Your task to perform on an android device: check android version Image 0: 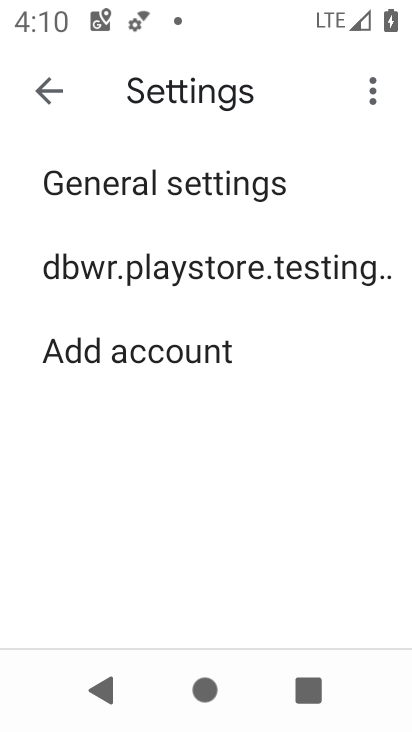
Step 0: press home button
Your task to perform on an android device: check android version Image 1: 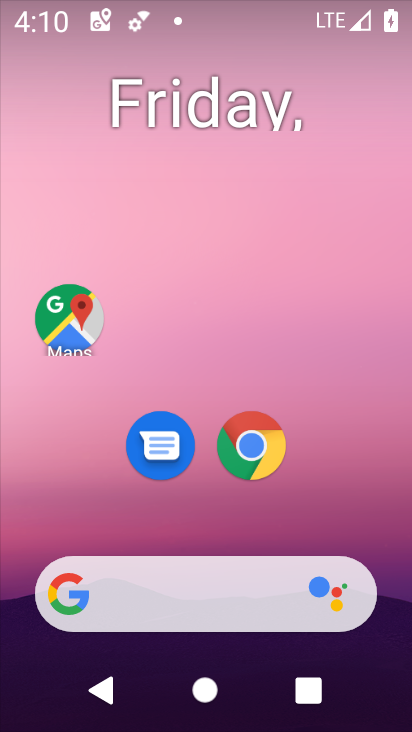
Step 1: drag from (379, 530) to (270, 106)
Your task to perform on an android device: check android version Image 2: 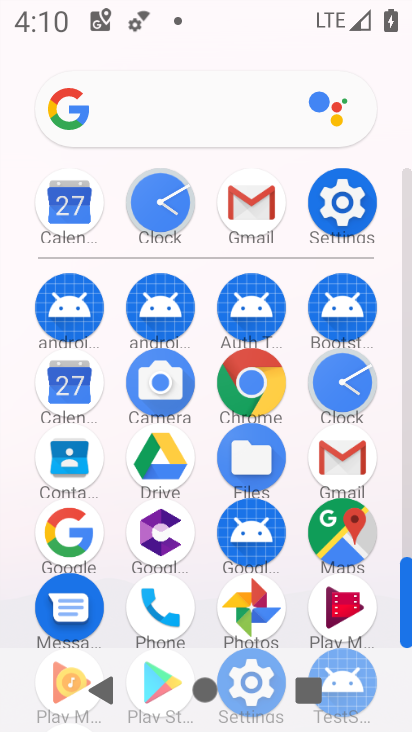
Step 2: click (350, 203)
Your task to perform on an android device: check android version Image 3: 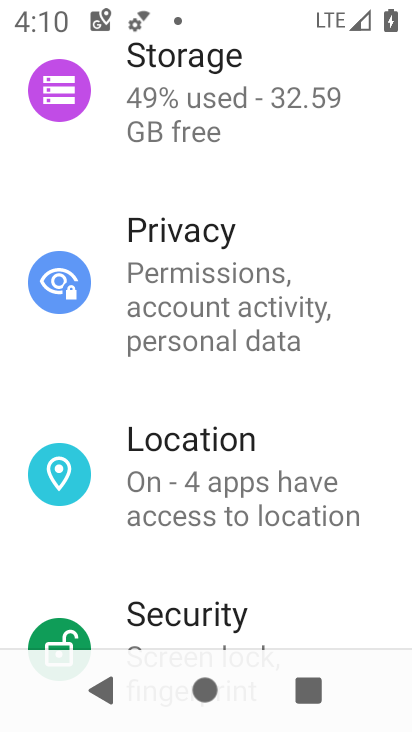
Step 3: drag from (269, 564) to (225, 150)
Your task to perform on an android device: check android version Image 4: 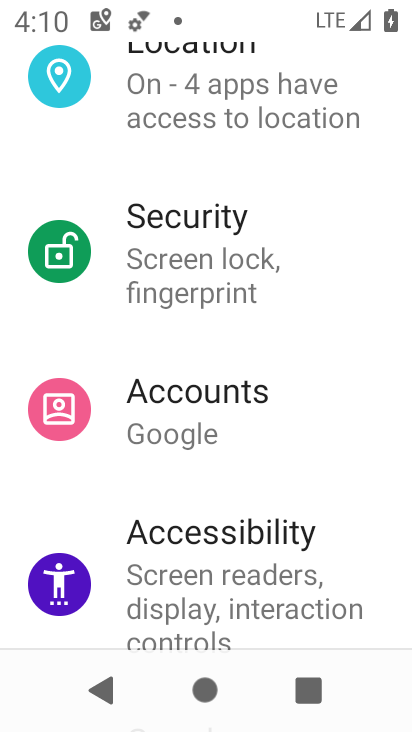
Step 4: drag from (280, 636) to (163, 0)
Your task to perform on an android device: check android version Image 5: 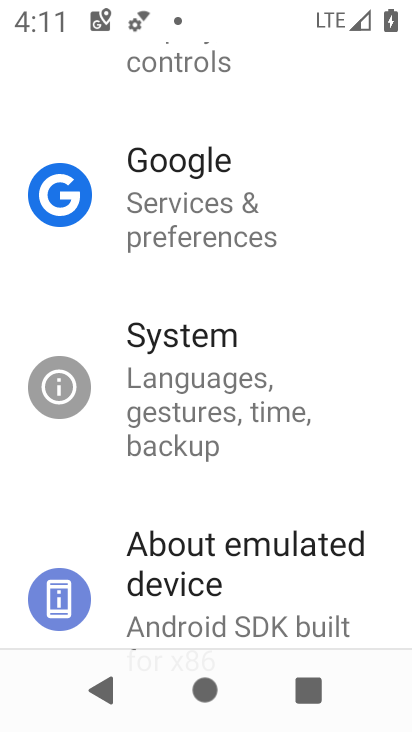
Step 5: click (230, 548)
Your task to perform on an android device: check android version Image 6: 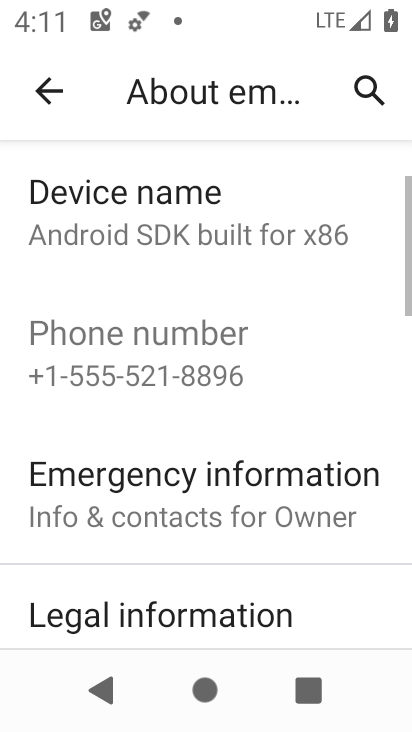
Step 6: drag from (267, 587) to (228, 57)
Your task to perform on an android device: check android version Image 7: 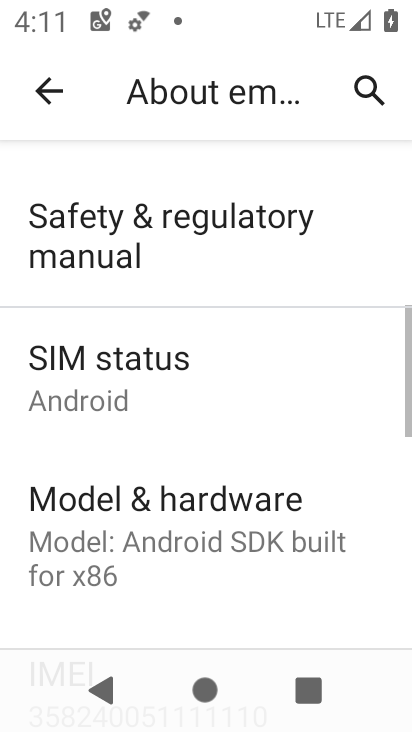
Step 7: drag from (207, 591) to (199, 119)
Your task to perform on an android device: check android version Image 8: 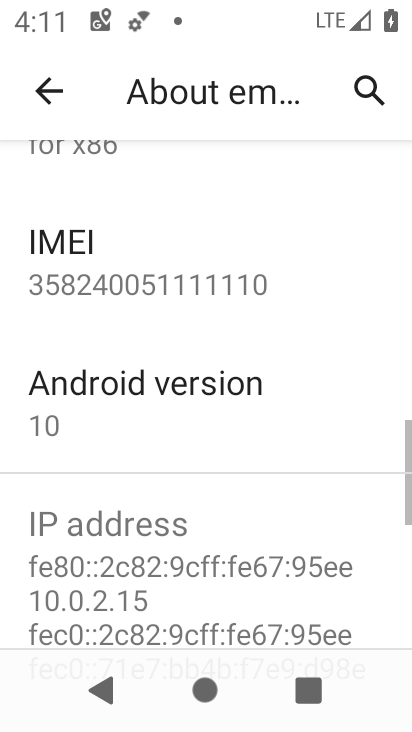
Step 8: click (179, 387)
Your task to perform on an android device: check android version Image 9: 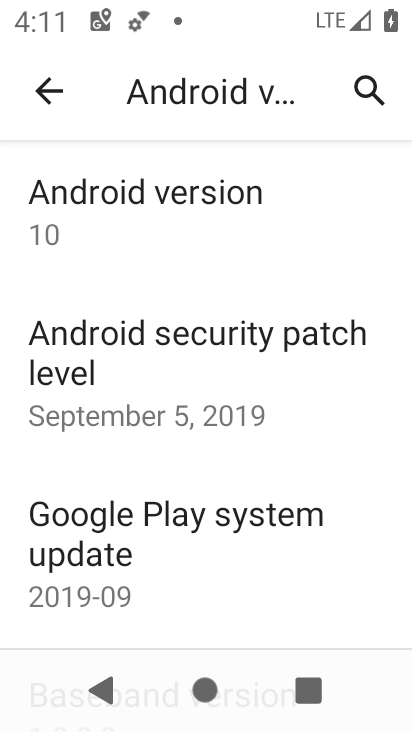
Step 9: task complete